Your task to perform on an android device: Do I have any events today? Image 0: 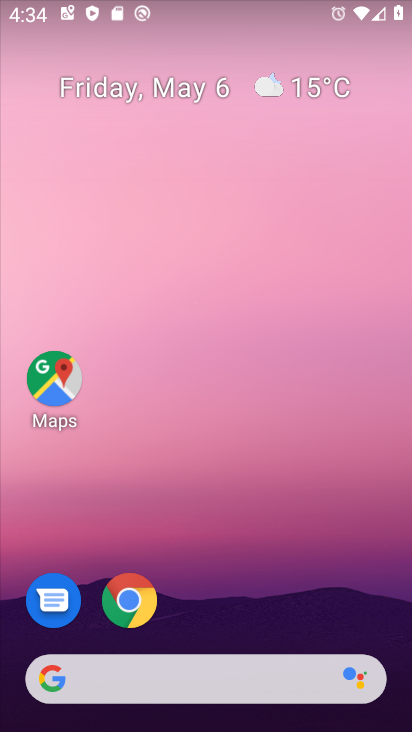
Step 0: drag from (206, 562) to (254, 110)
Your task to perform on an android device: Do I have any events today? Image 1: 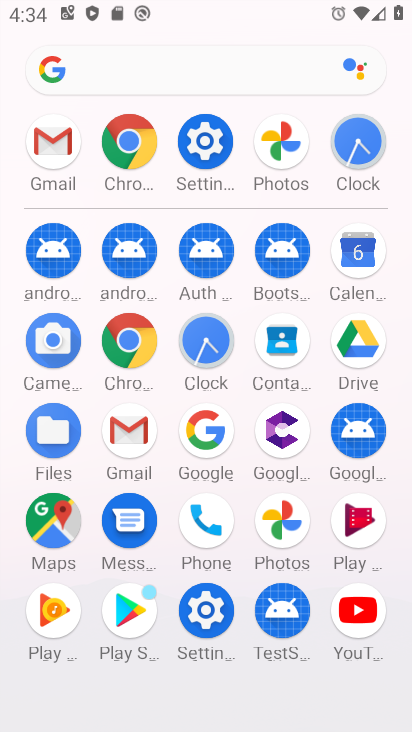
Step 1: click (360, 267)
Your task to perform on an android device: Do I have any events today? Image 2: 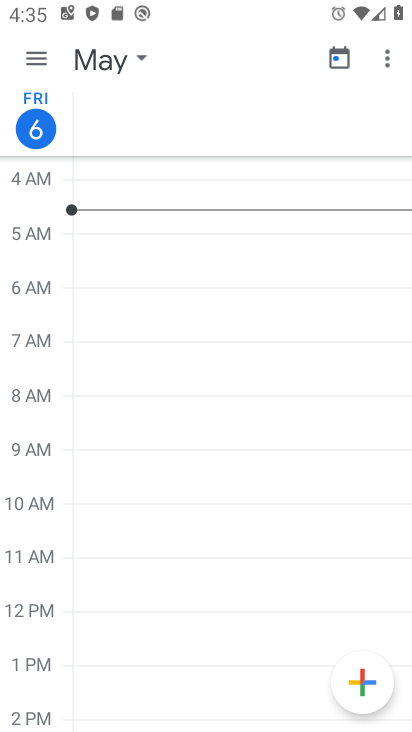
Step 2: click (36, 66)
Your task to perform on an android device: Do I have any events today? Image 3: 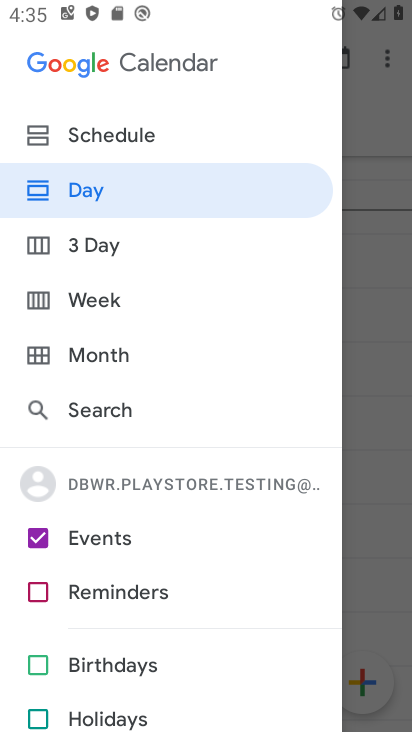
Step 3: click (100, 197)
Your task to perform on an android device: Do I have any events today? Image 4: 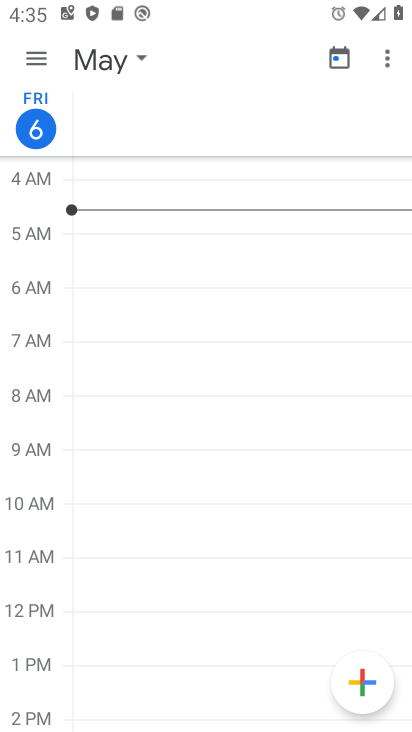
Step 4: task complete